Your task to perform on an android device: Open Yahoo.com Image 0: 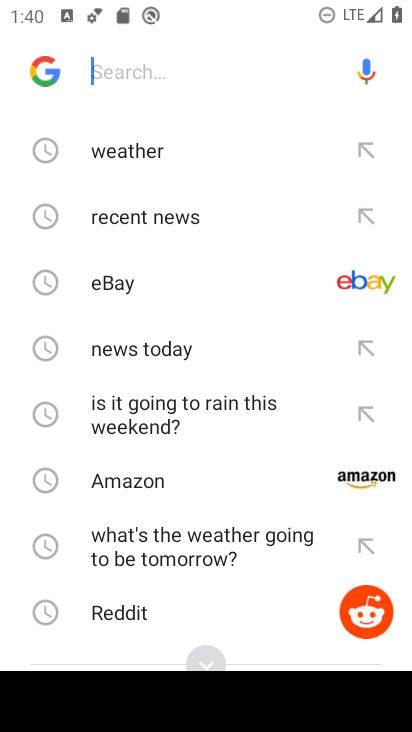
Step 0: press home button
Your task to perform on an android device: Open Yahoo.com Image 1: 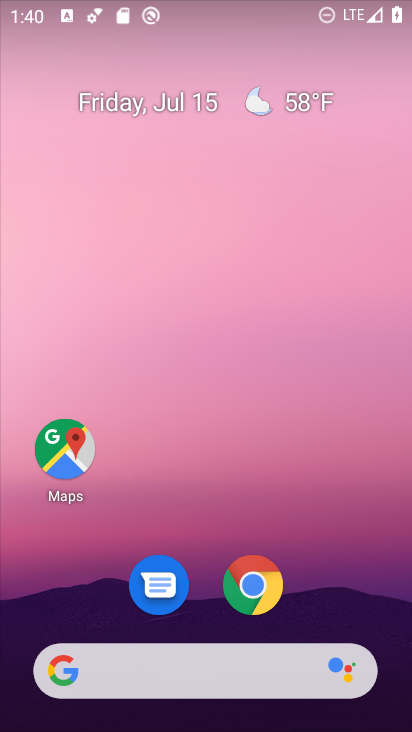
Step 1: click (264, 584)
Your task to perform on an android device: Open Yahoo.com Image 2: 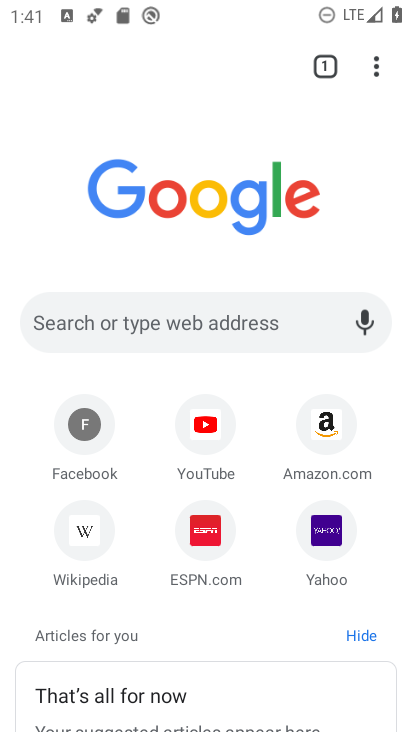
Step 2: click (323, 529)
Your task to perform on an android device: Open Yahoo.com Image 3: 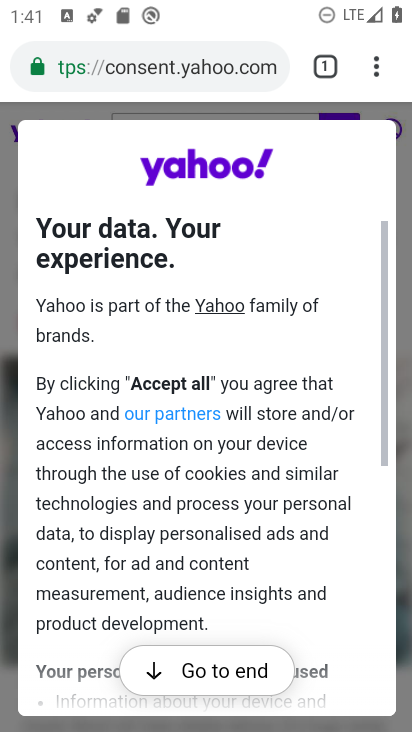
Step 3: task complete